Your task to perform on an android device: Turn on the flashlight Image 0: 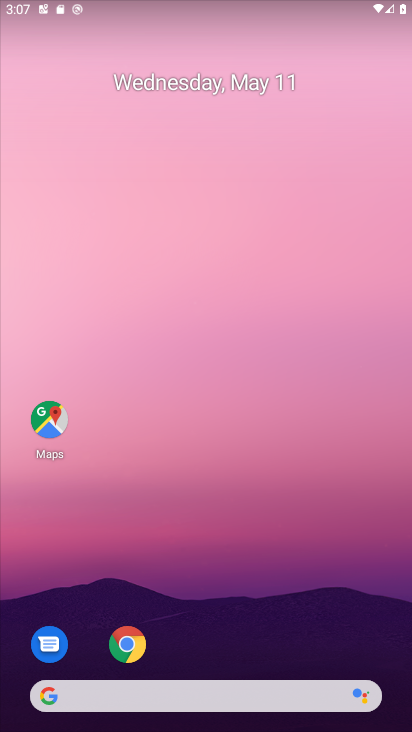
Step 0: drag from (181, 674) to (110, 28)
Your task to perform on an android device: Turn on the flashlight Image 1: 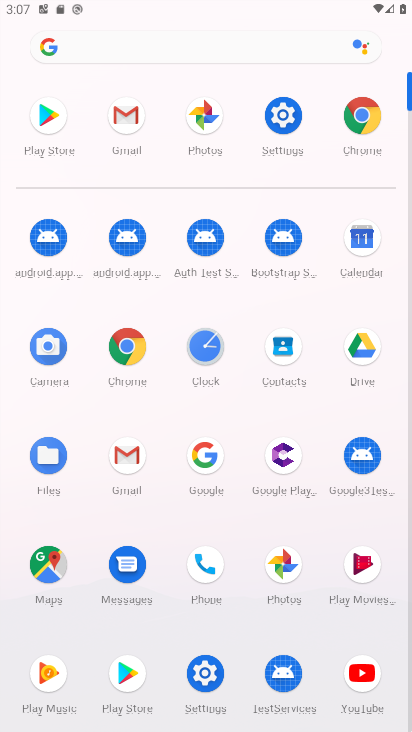
Step 1: click (276, 120)
Your task to perform on an android device: Turn on the flashlight Image 2: 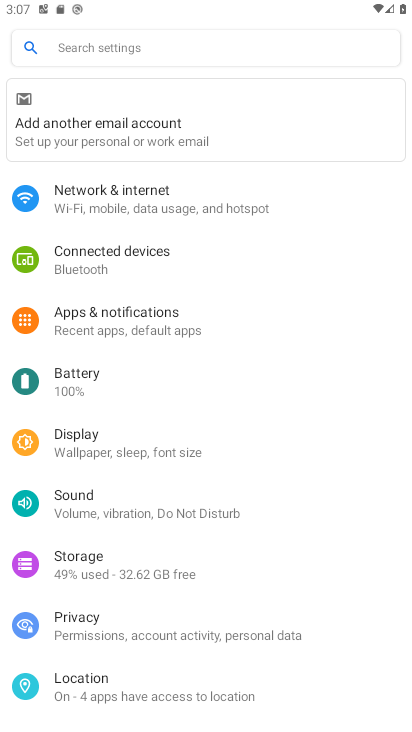
Step 2: click (214, 41)
Your task to perform on an android device: Turn on the flashlight Image 3: 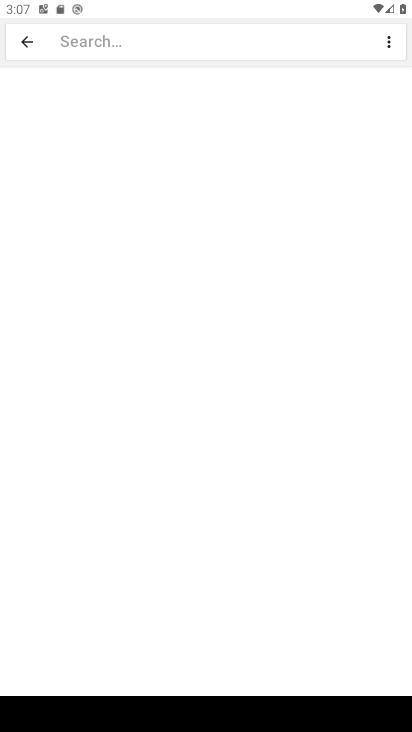
Step 3: type "flashlight"
Your task to perform on an android device: Turn on the flashlight Image 4: 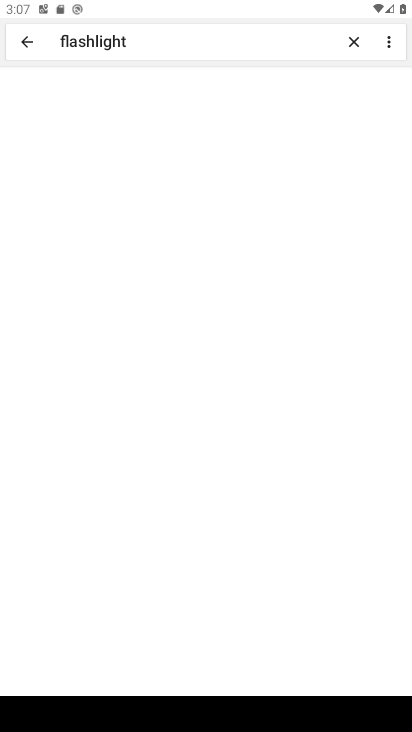
Step 4: task complete